Your task to perform on an android device: toggle show notifications on the lock screen Image 0: 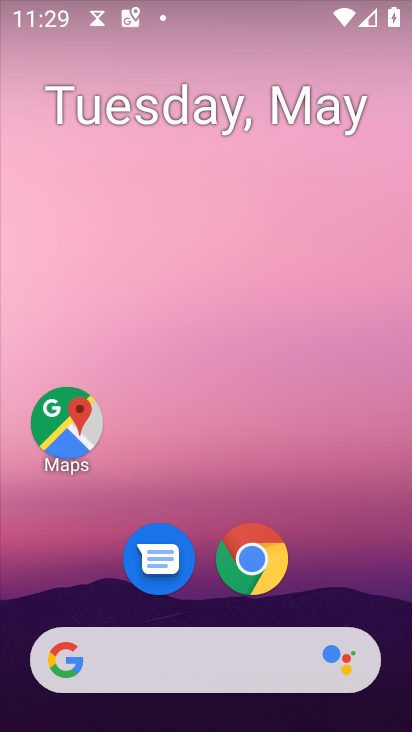
Step 0: drag from (360, 545) to (301, 22)
Your task to perform on an android device: toggle show notifications on the lock screen Image 1: 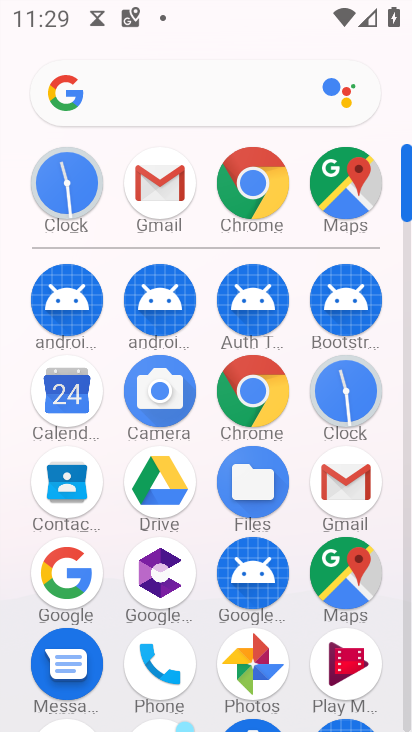
Step 1: drag from (388, 587) to (395, 260)
Your task to perform on an android device: toggle show notifications on the lock screen Image 2: 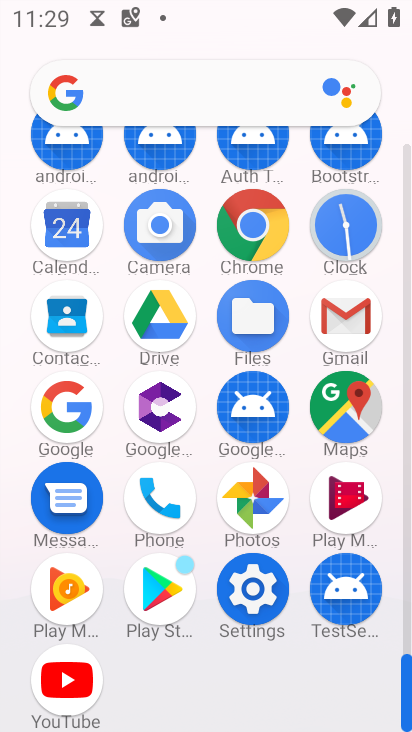
Step 2: click (248, 609)
Your task to perform on an android device: toggle show notifications on the lock screen Image 3: 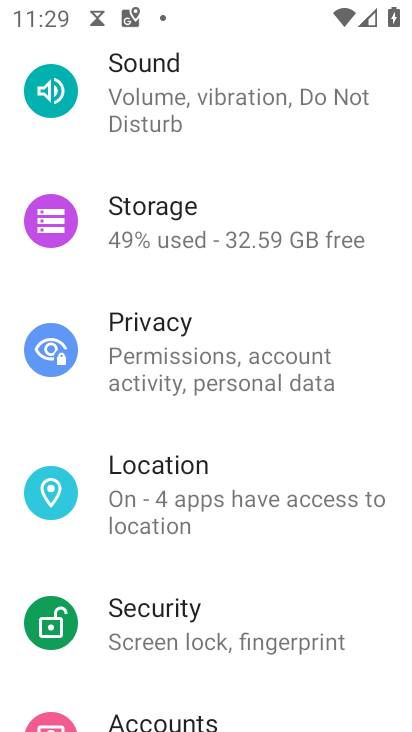
Step 3: drag from (310, 184) to (282, 633)
Your task to perform on an android device: toggle show notifications on the lock screen Image 4: 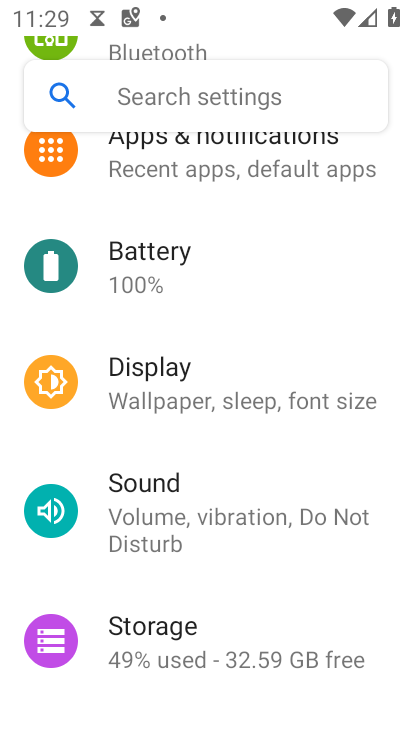
Step 4: click (283, 180)
Your task to perform on an android device: toggle show notifications on the lock screen Image 5: 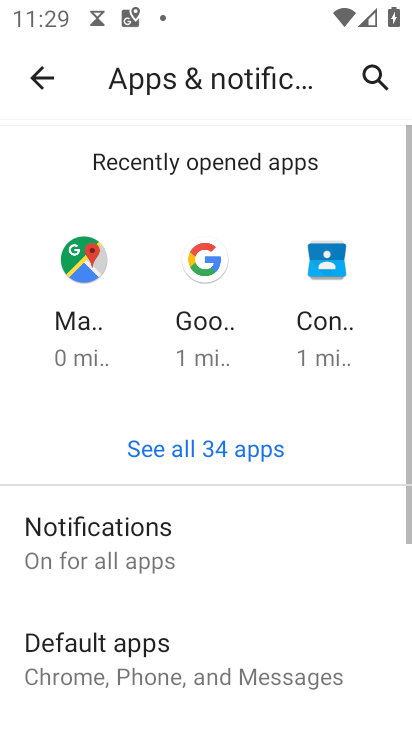
Step 5: click (134, 552)
Your task to perform on an android device: toggle show notifications on the lock screen Image 6: 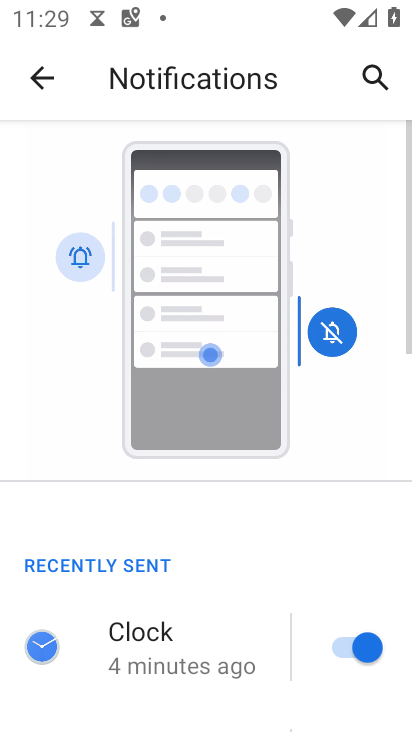
Step 6: drag from (202, 594) to (270, 180)
Your task to perform on an android device: toggle show notifications on the lock screen Image 7: 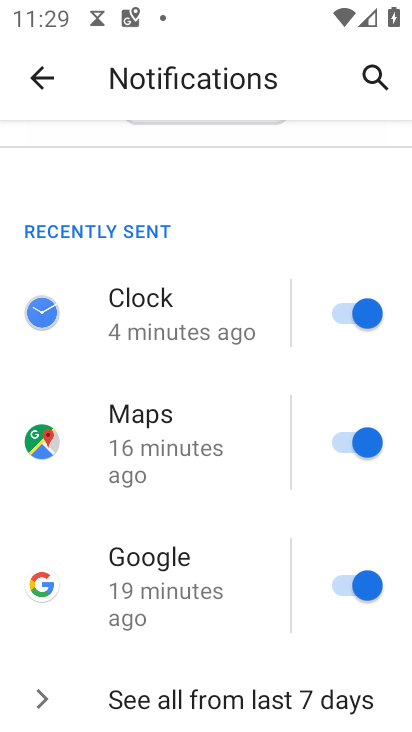
Step 7: drag from (224, 563) to (287, 187)
Your task to perform on an android device: toggle show notifications on the lock screen Image 8: 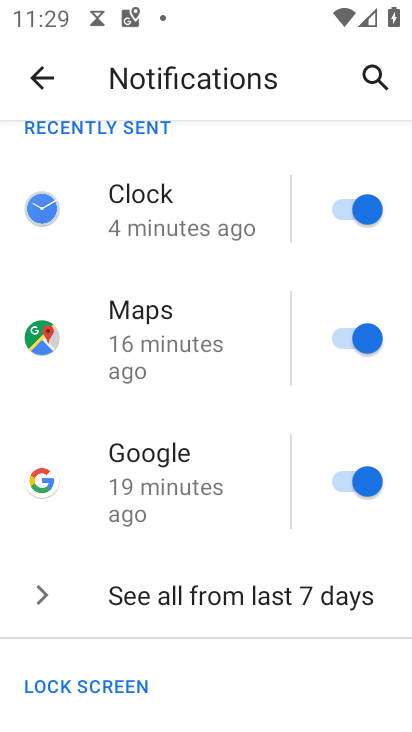
Step 8: drag from (185, 638) to (217, 129)
Your task to perform on an android device: toggle show notifications on the lock screen Image 9: 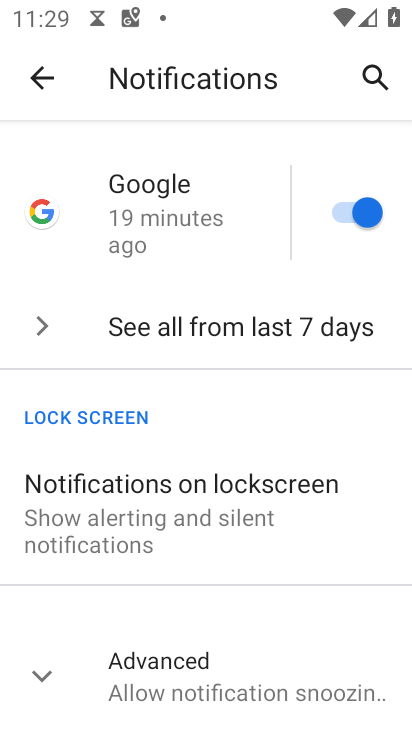
Step 9: click (184, 526)
Your task to perform on an android device: toggle show notifications on the lock screen Image 10: 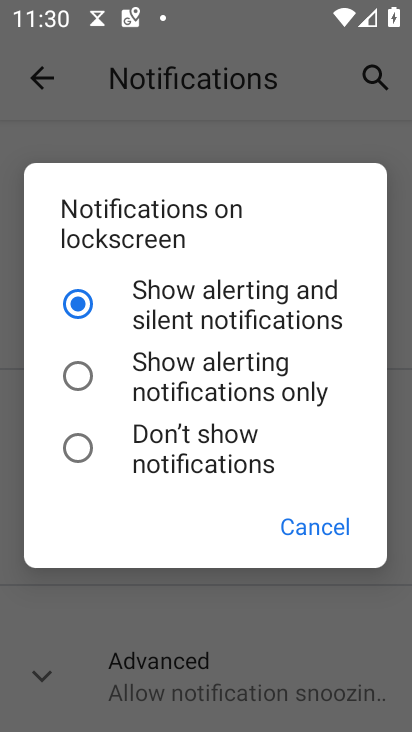
Step 10: click (90, 374)
Your task to perform on an android device: toggle show notifications on the lock screen Image 11: 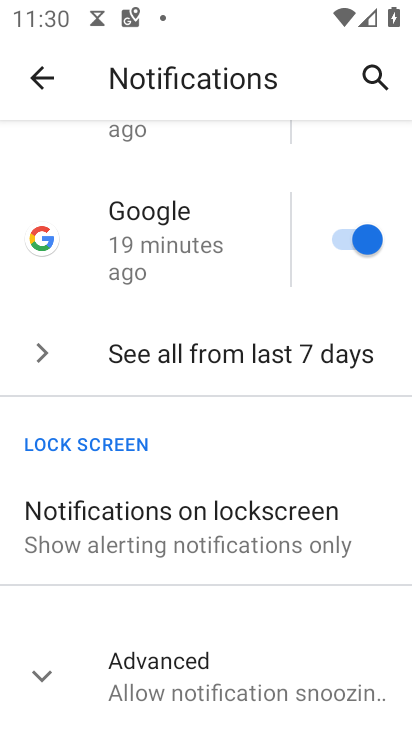
Step 11: task complete